Your task to perform on an android device: Go to Google Image 0: 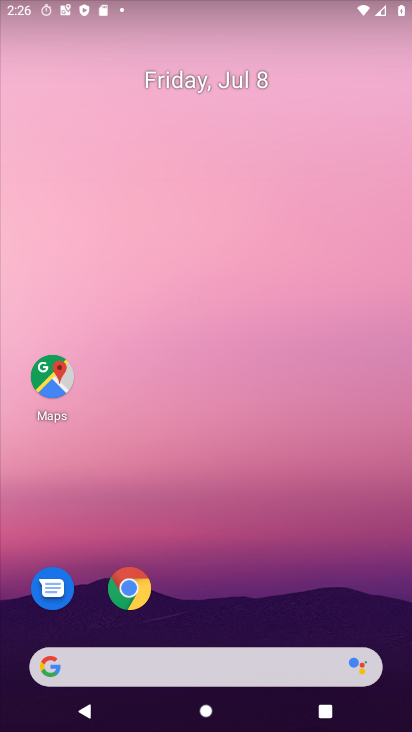
Step 0: press home button
Your task to perform on an android device: Go to Google Image 1: 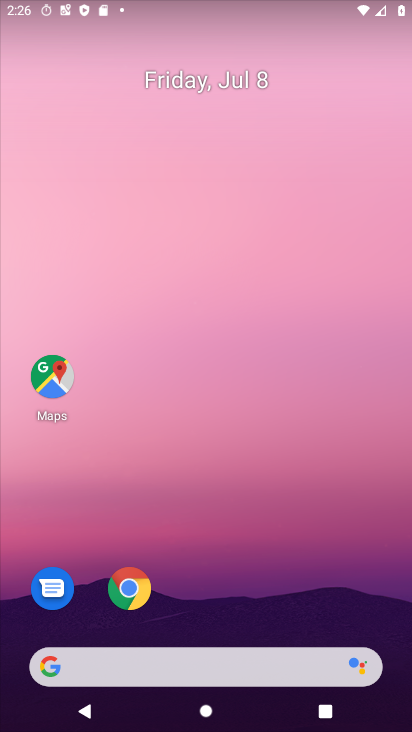
Step 1: click (50, 668)
Your task to perform on an android device: Go to Google Image 2: 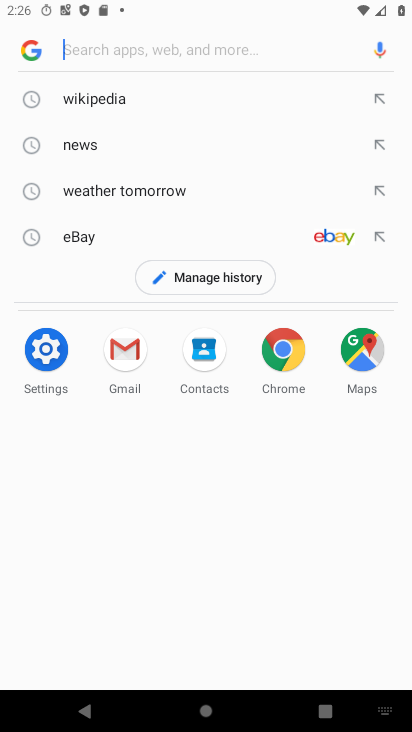
Step 2: task complete